Your task to perform on an android device: Open Youtube and go to "Your channel" Image 0: 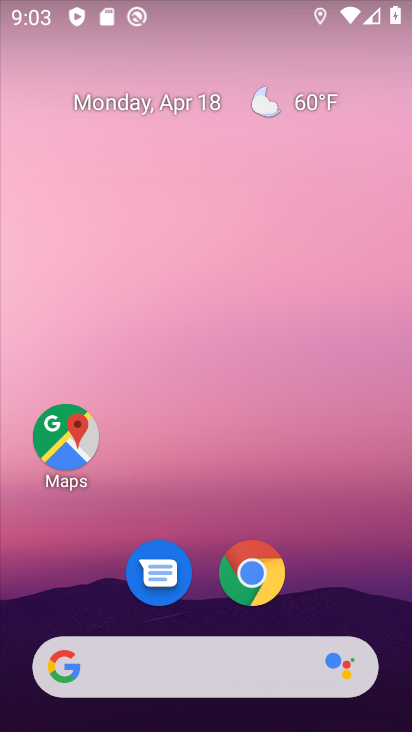
Step 0: drag from (324, 569) to (304, 123)
Your task to perform on an android device: Open Youtube and go to "Your channel" Image 1: 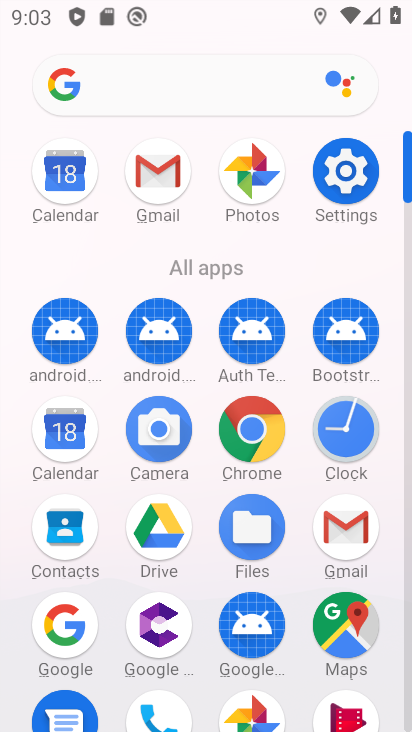
Step 1: drag from (236, 640) to (264, 287)
Your task to perform on an android device: Open Youtube and go to "Your channel" Image 2: 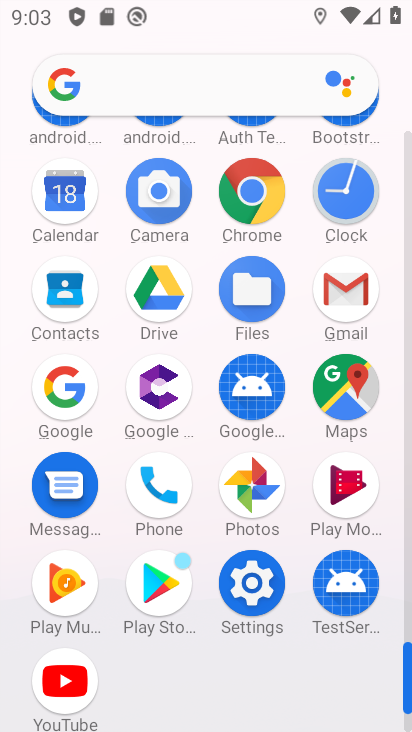
Step 2: click (72, 691)
Your task to perform on an android device: Open Youtube and go to "Your channel" Image 3: 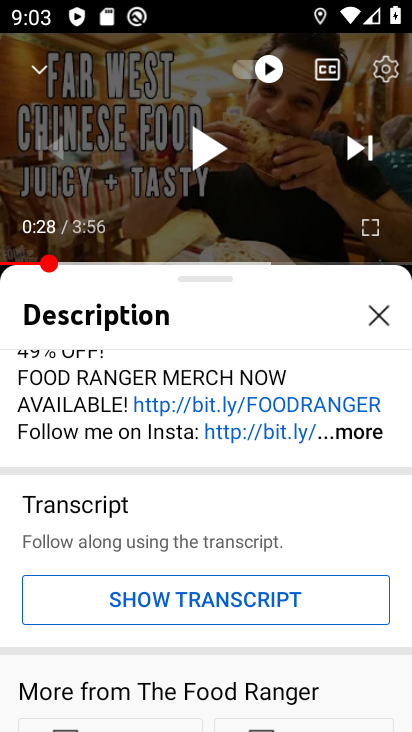
Step 3: press back button
Your task to perform on an android device: Open Youtube and go to "Your channel" Image 4: 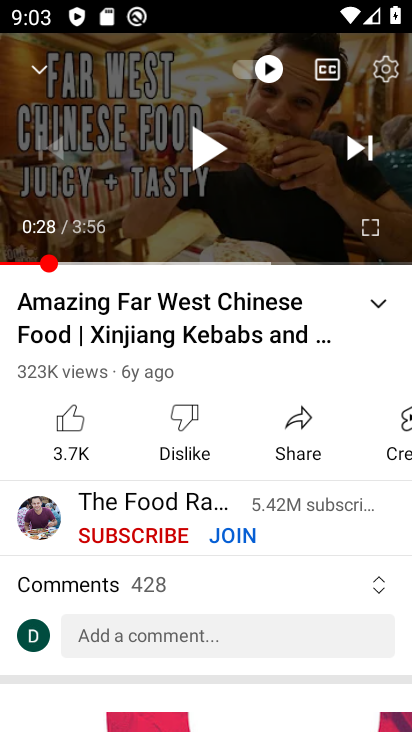
Step 4: press back button
Your task to perform on an android device: Open Youtube and go to "Your channel" Image 5: 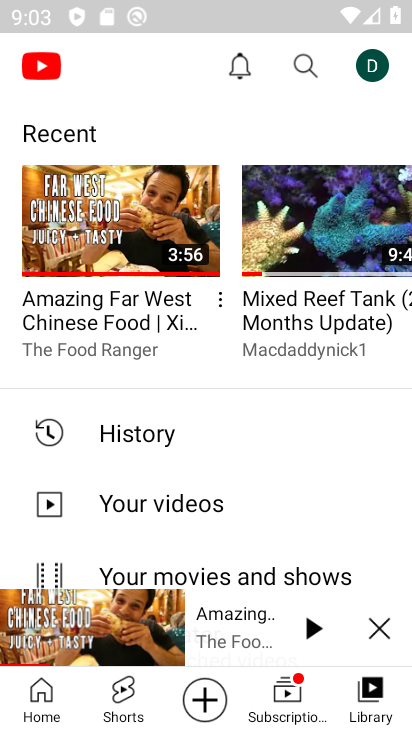
Step 5: click (370, 59)
Your task to perform on an android device: Open Youtube and go to "Your channel" Image 6: 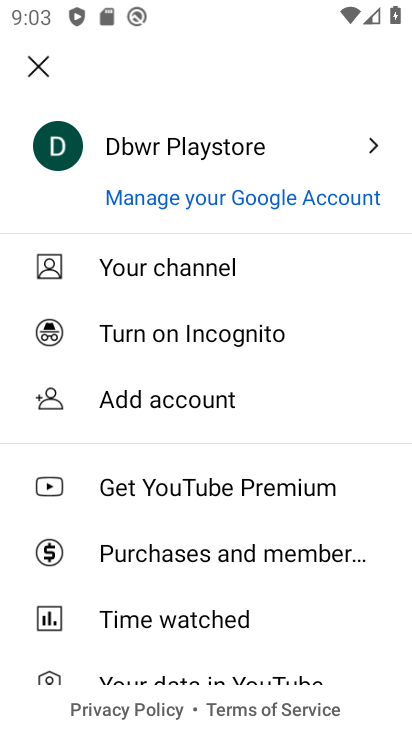
Step 6: click (146, 270)
Your task to perform on an android device: Open Youtube and go to "Your channel" Image 7: 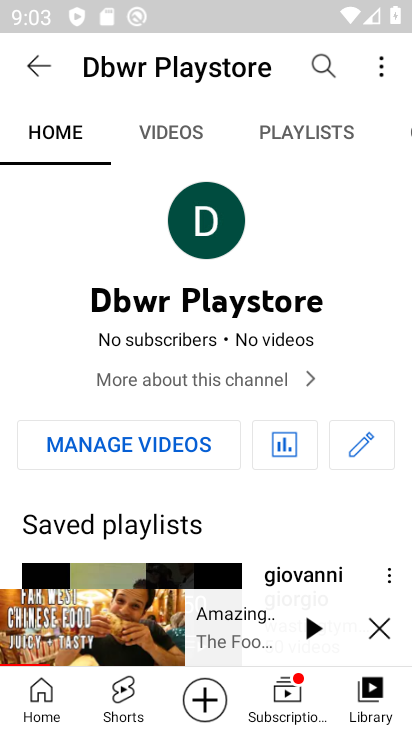
Step 7: task complete